Your task to perform on an android device: toggle javascript in the chrome app Image 0: 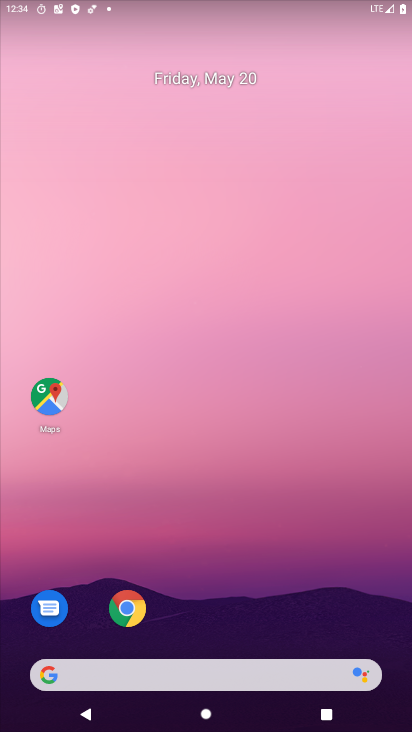
Step 0: drag from (351, 561) to (317, 126)
Your task to perform on an android device: toggle javascript in the chrome app Image 1: 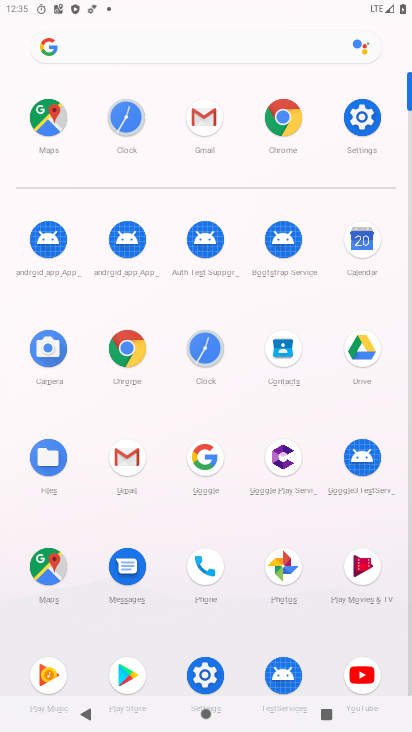
Step 1: click (363, 126)
Your task to perform on an android device: toggle javascript in the chrome app Image 2: 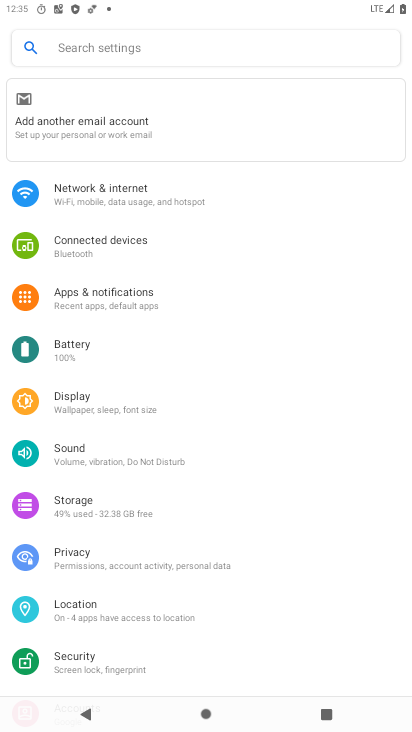
Step 2: press home button
Your task to perform on an android device: toggle javascript in the chrome app Image 3: 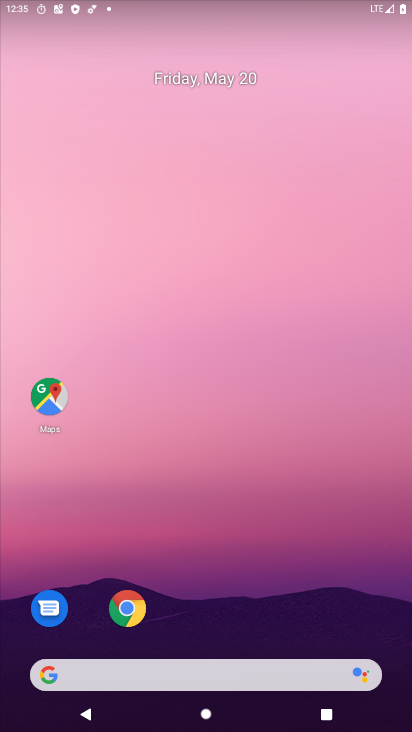
Step 3: click (137, 603)
Your task to perform on an android device: toggle javascript in the chrome app Image 4: 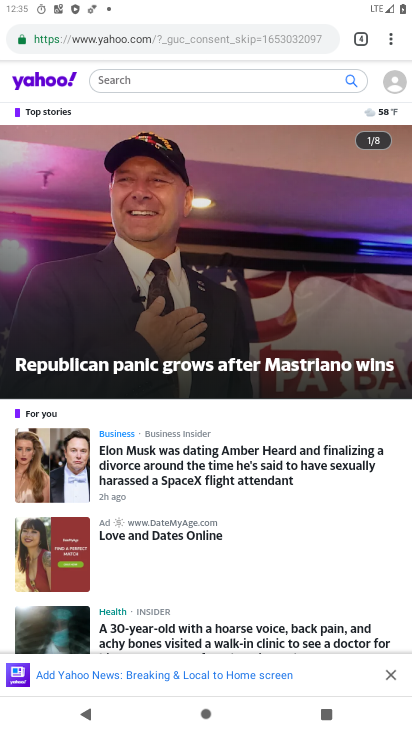
Step 4: drag from (397, 53) to (325, 467)
Your task to perform on an android device: toggle javascript in the chrome app Image 5: 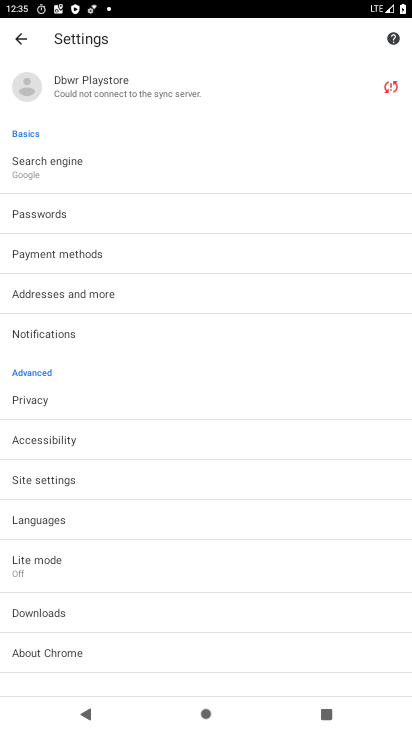
Step 5: click (79, 476)
Your task to perform on an android device: toggle javascript in the chrome app Image 6: 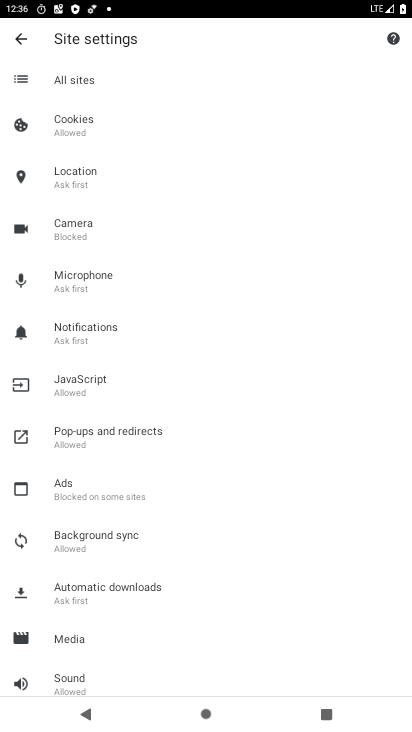
Step 6: click (154, 377)
Your task to perform on an android device: toggle javascript in the chrome app Image 7: 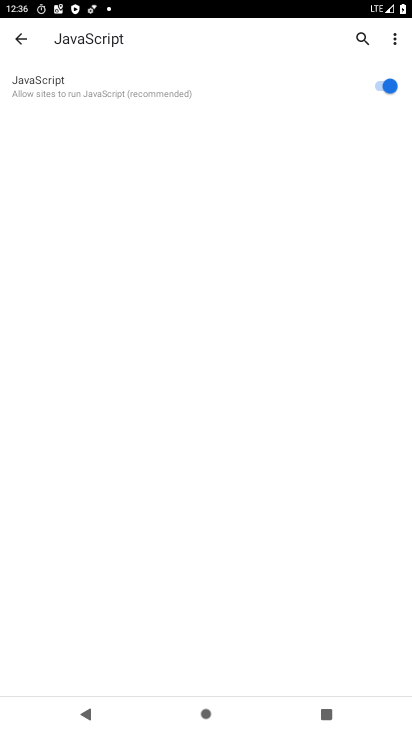
Step 7: click (385, 88)
Your task to perform on an android device: toggle javascript in the chrome app Image 8: 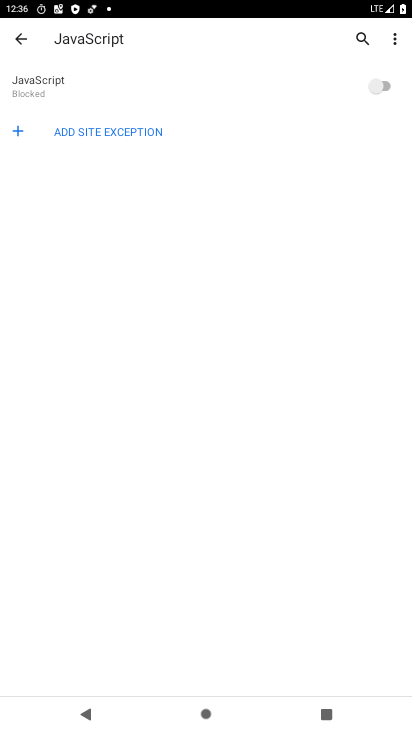
Step 8: task complete